Your task to perform on an android device: toggle show notifications on the lock screen Image 0: 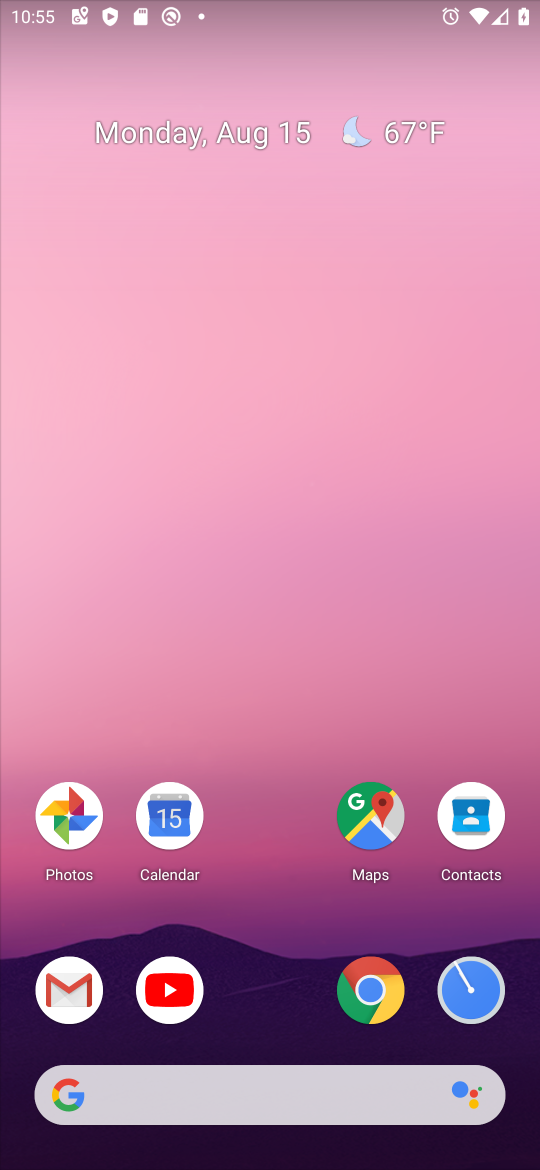
Step 0: drag from (265, 992) to (251, 304)
Your task to perform on an android device: toggle show notifications on the lock screen Image 1: 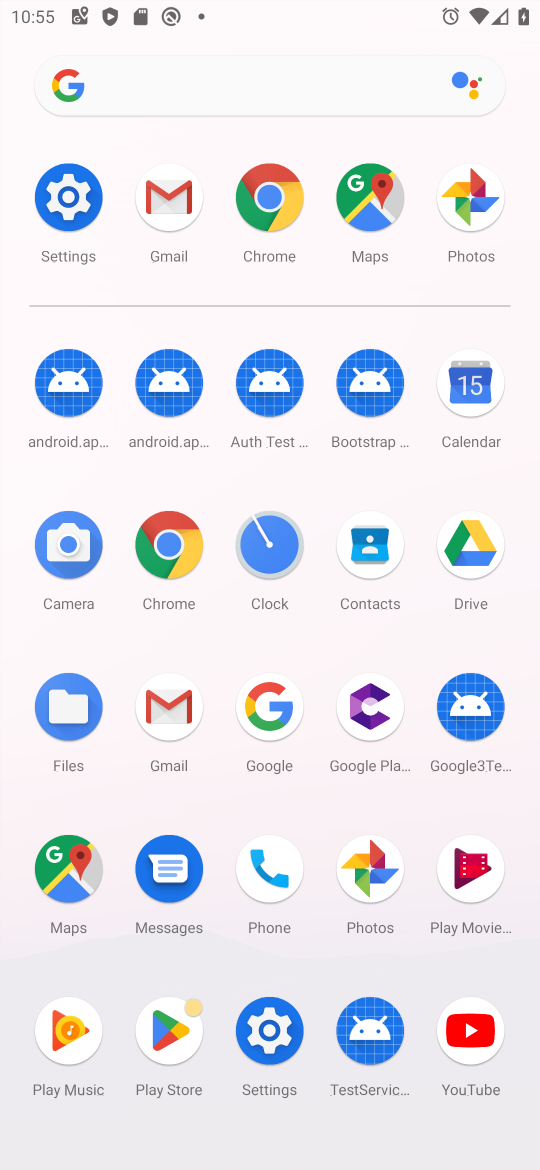
Step 1: click (64, 195)
Your task to perform on an android device: toggle show notifications on the lock screen Image 2: 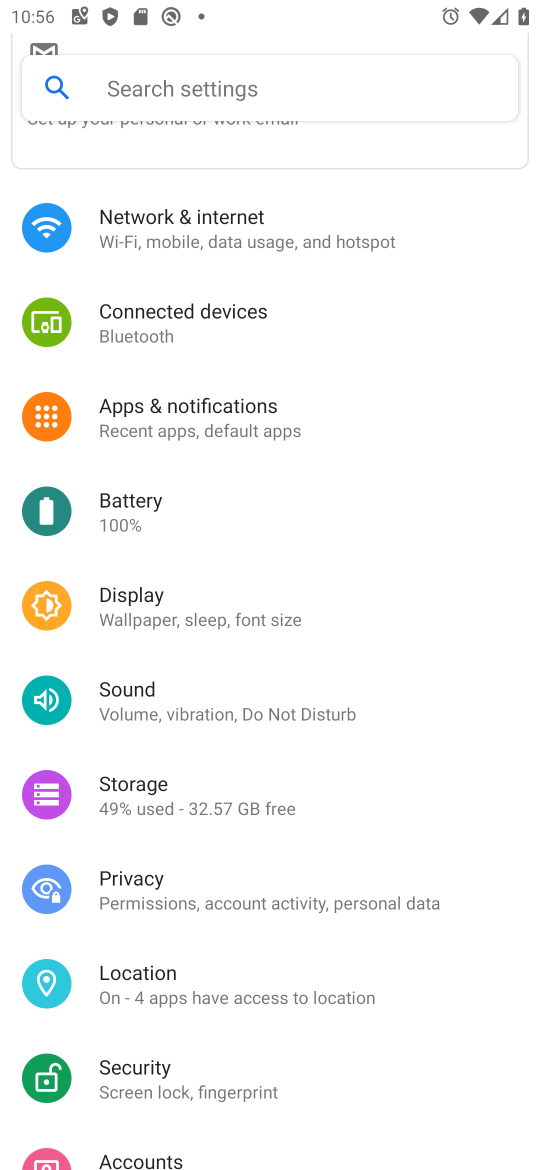
Step 2: click (214, 413)
Your task to perform on an android device: toggle show notifications on the lock screen Image 3: 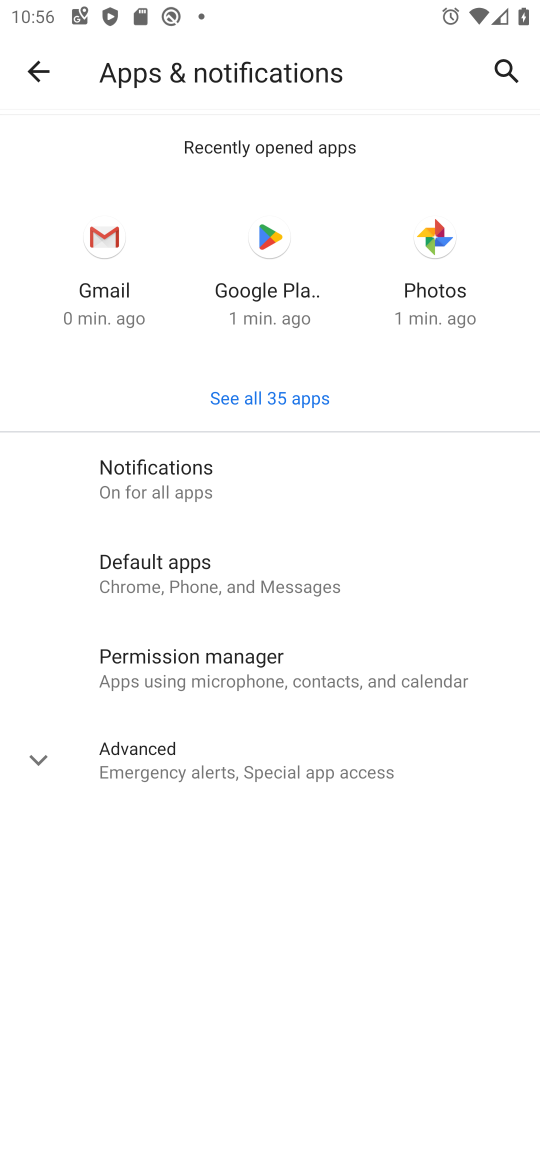
Step 3: click (144, 478)
Your task to perform on an android device: toggle show notifications on the lock screen Image 4: 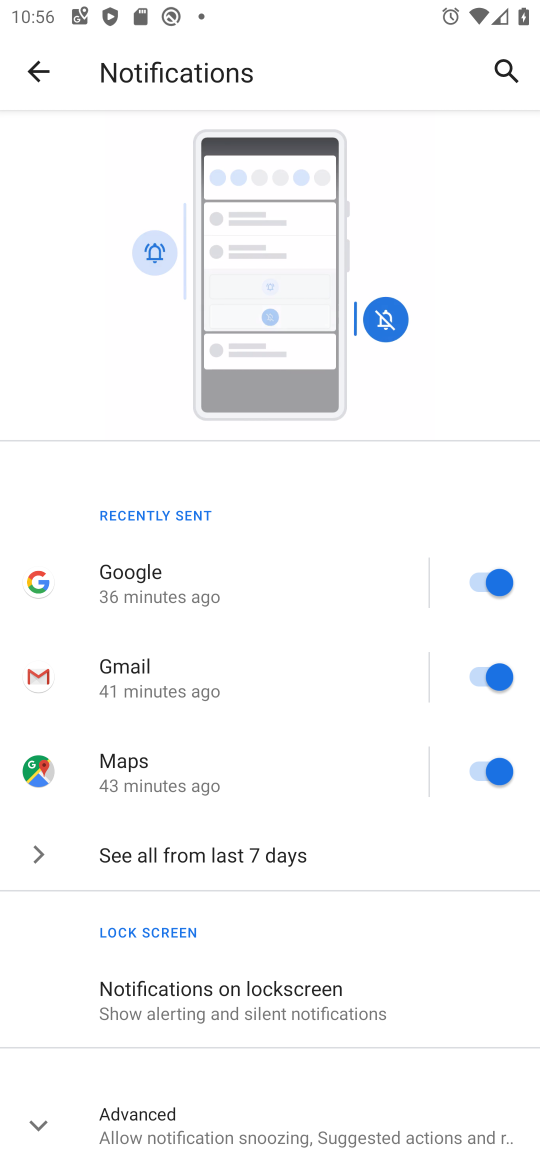
Step 4: click (221, 988)
Your task to perform on an android device: toggle show notifications on the lock screen Image 5: 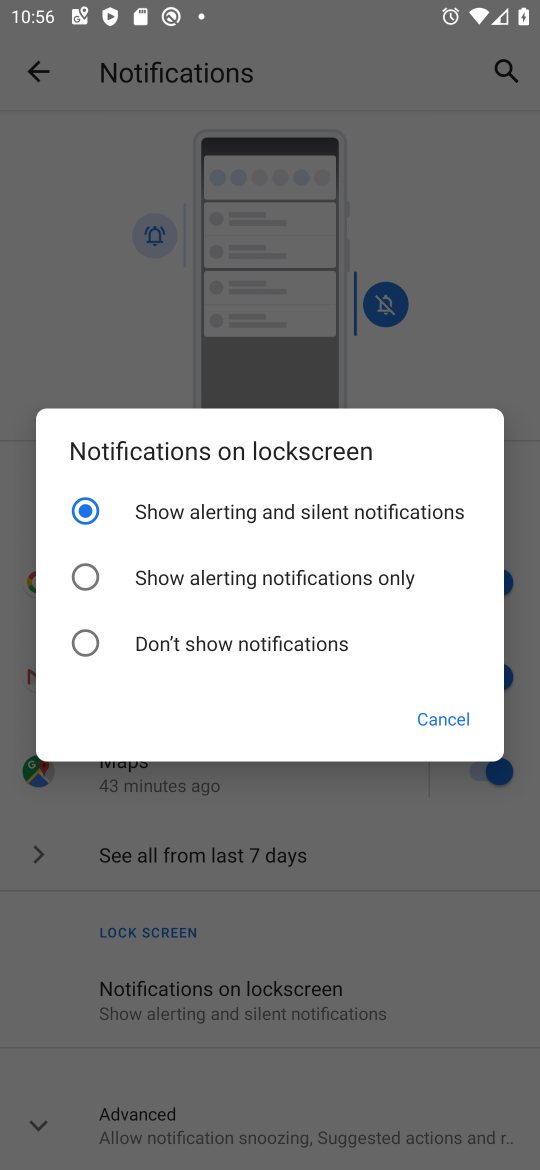
Step 5: click (78, 648)
Your task to perform on an android device: toggle show notifications on the lock screen Image 6: 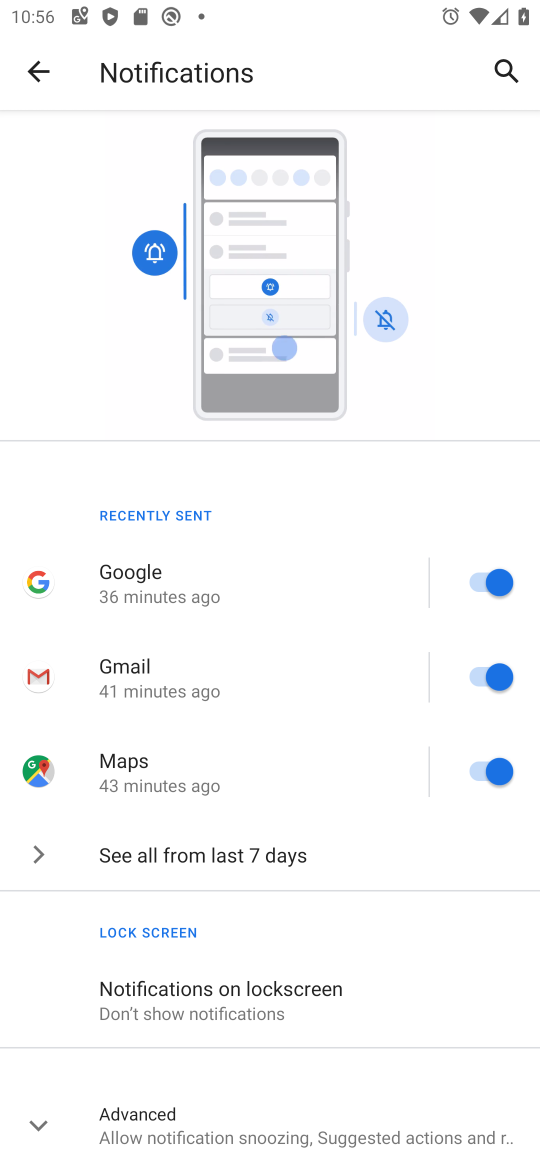
Step 6: task complete